Your task to perform on an android device: Show me popular games on the Play Store Image 0: 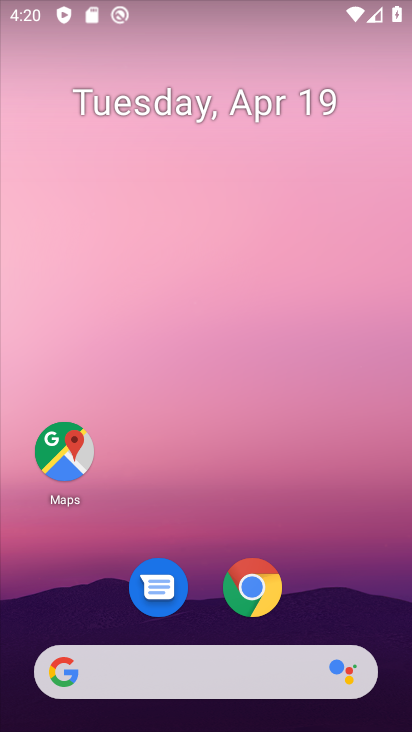
Step 0: drag from (315, 339) to (273, 1)
Your task to perform on an android device: Show me popular games on the Play Store Image 1: 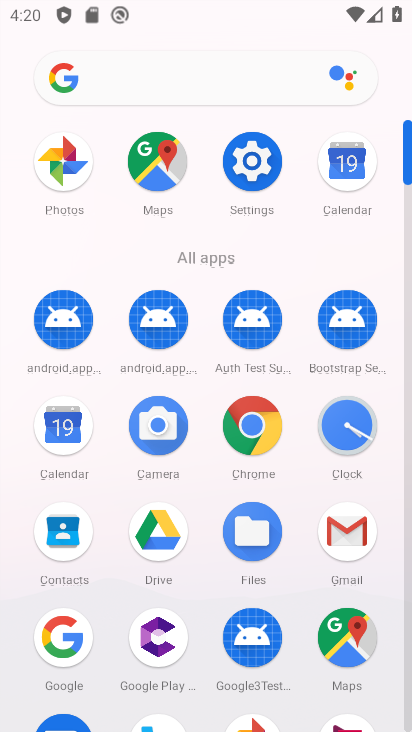
Step 1: drag from (14, 577) to (14, 207)
Your task to perform on an android device: Show me popular games on the Play Store Image 2: 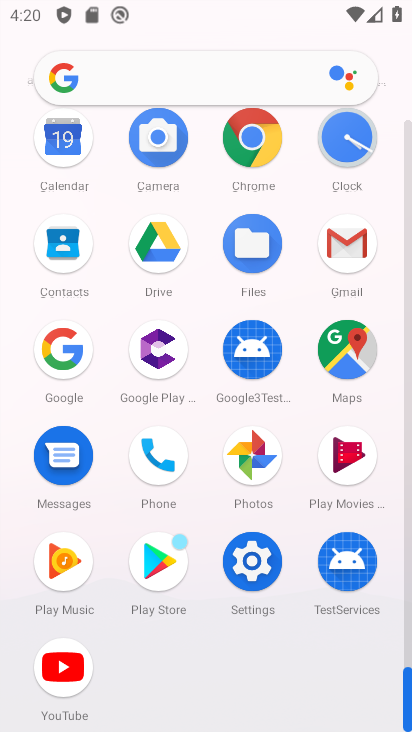
Step 2: click (152, 555)
Your task to perform on an android device: Show me popular games on the Play Store Image 3: 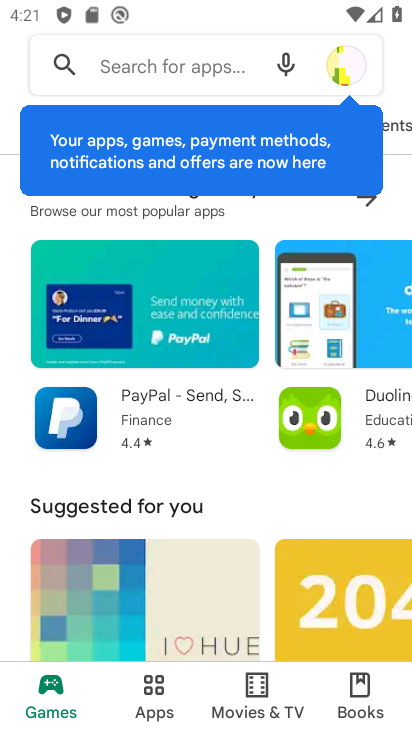
Step 3: click (142, 699)
Your task to perform on an android device: Show me popular games on the Play Store Image 4: 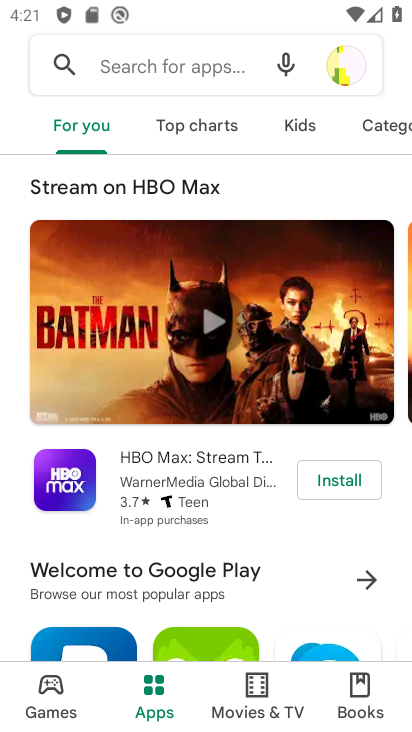
Step 4: drag from (386, 121) to (38, 115)
Your task to perform on an android device: Show me popular games on the Play Store Image 5: 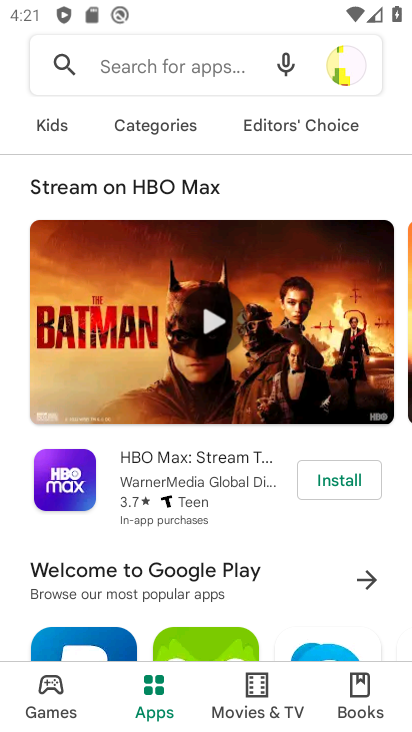
Step 5: drag from (337, 135) to (142, 130)
Your task to perform on an android device: Show me popular games on the Play Store Image 6: 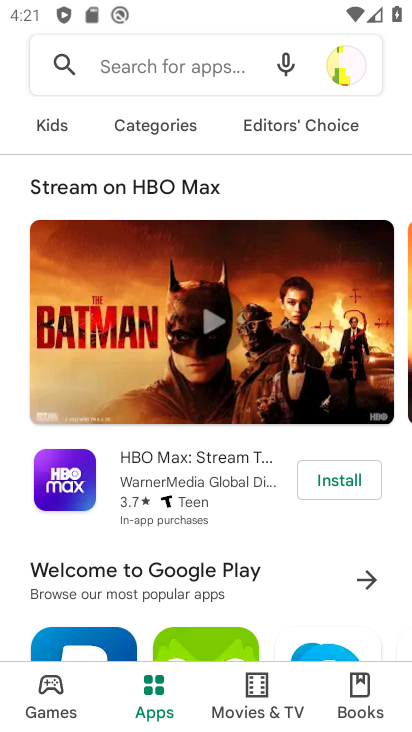
Step 6: drag from (117, 125) to (360, 127)
Your task to perform on an android device: Show me popular games on the Play Store Image 7: 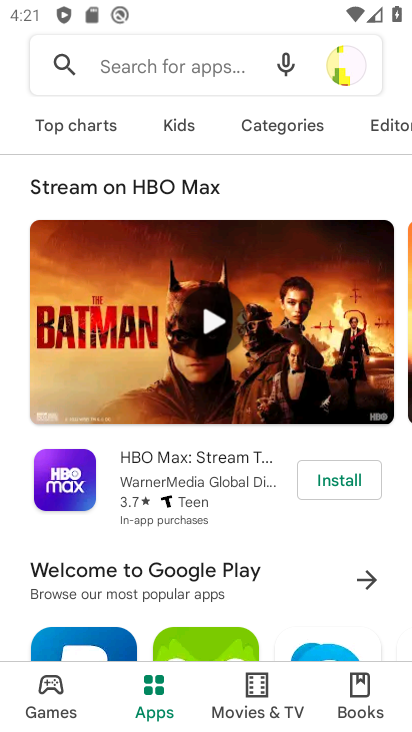
Step 7: drag from (84, 116) to (363, 130)
Your task to perform on an android device: Show me popular games on the Play Store Image 8: 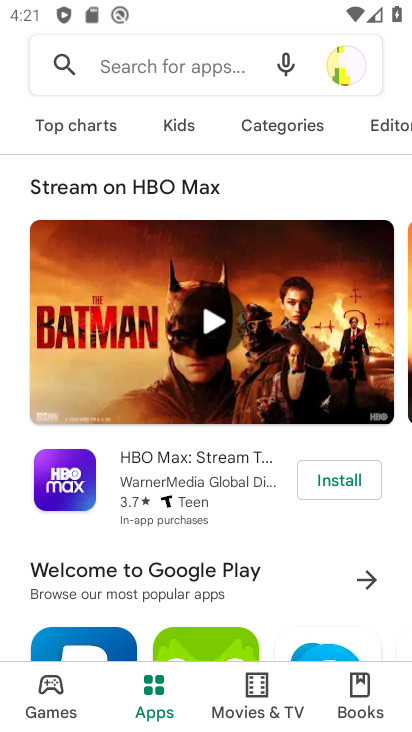
Step 8: drag from (188, 564) to (238, 225)
Your task to perform on an android device: Show me popular games on the Play Store Image 9: 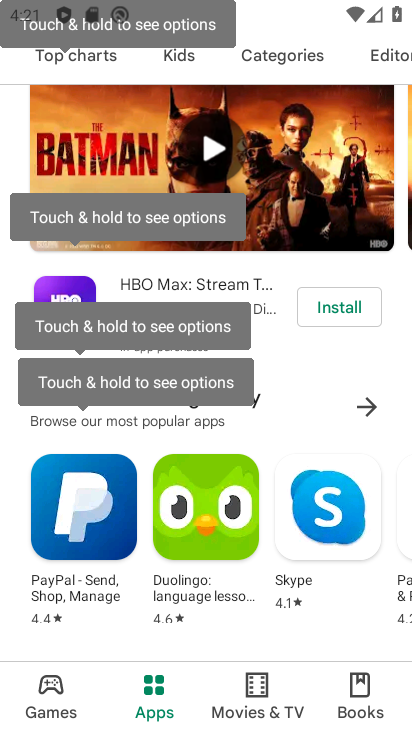
Step 9: drag from (223, 592) to (266, 191)
Your task to perform on an android device: Show me popular games on the Play Store Image 10: 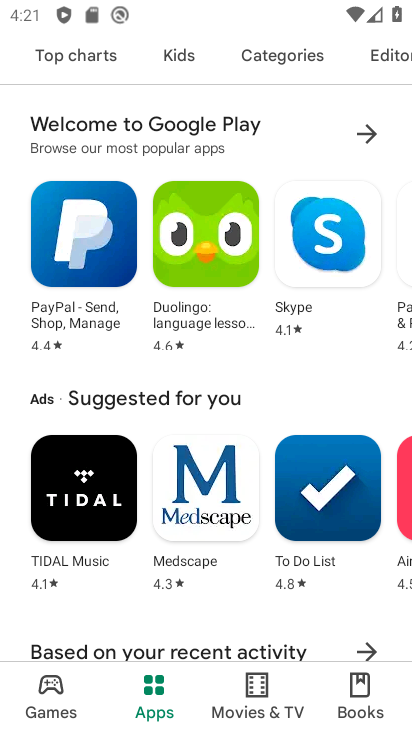
Step 10: drag from (211, 545) to (271, 149)
Your task to perform on an android device: Show me popular games on the Play Store Image 11: 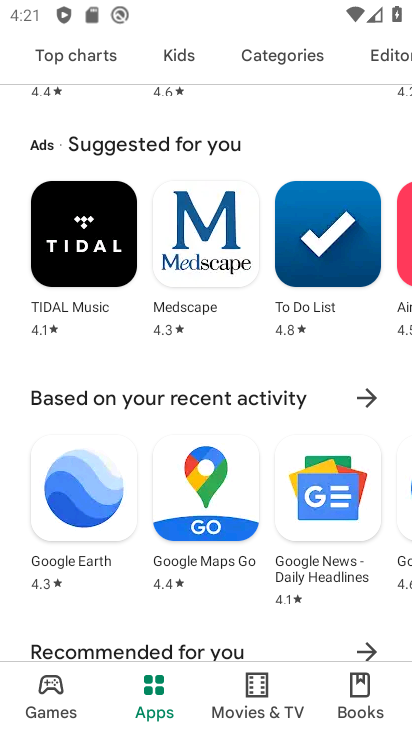
Step 11: drag from (168, 556) to (270, 131)
Your task to perform on an android device: Show me popular games on the Play Store Image 12: 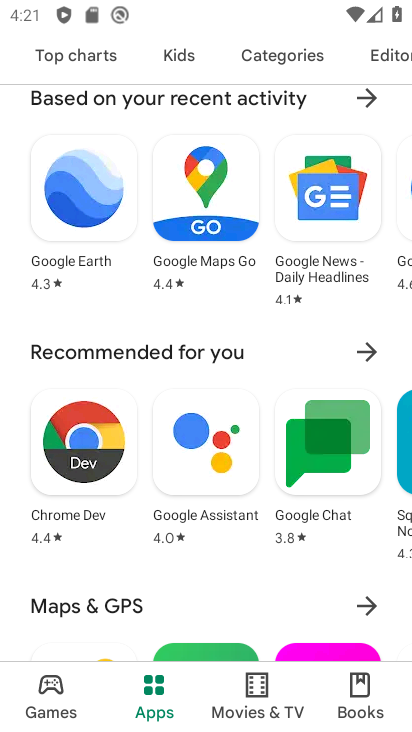
Step 12: drag from (171, 562) to (254, 168)
Your task to perform on an android device: Show me popular games on the Play Store Image 13: 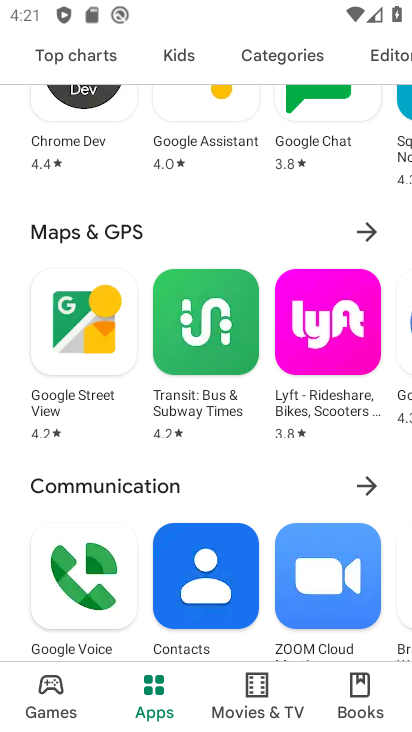
Step 13: drag from (132, 556) to (205, 208)
Your task to perform on an android device: Show me popular games on the Play Store Image 14: 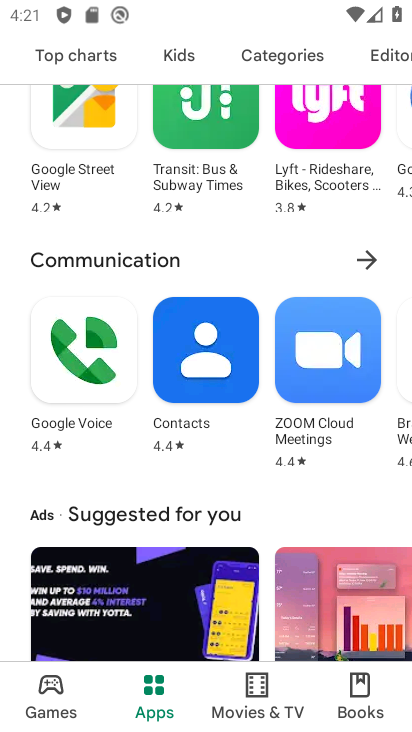
Step 14: drag from (150, 456) to (226, 51)
Your task to perform on an android device: Show me popular games on the Play Store Image 15: 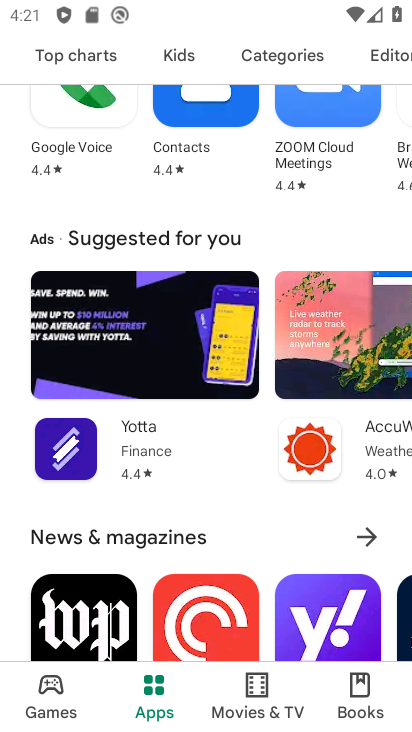
Step 15: click (379, 53)
Your task to perform on an android device: Show me popular games on the Play Store Image 16: 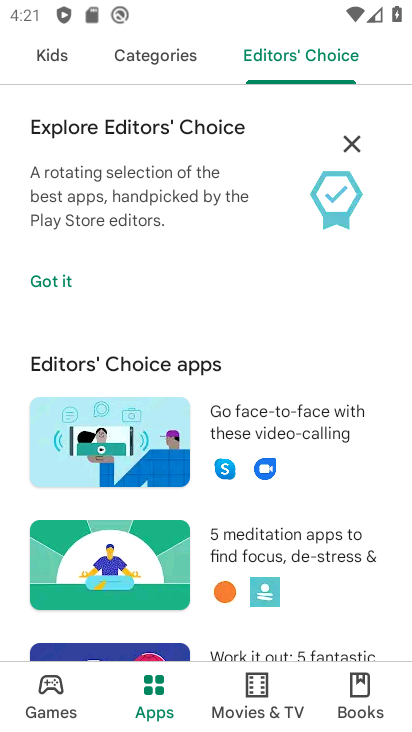
Step 16: click (139, 58)
Your task to perform on an android device: Show me popular games on the Play Store Image 17: 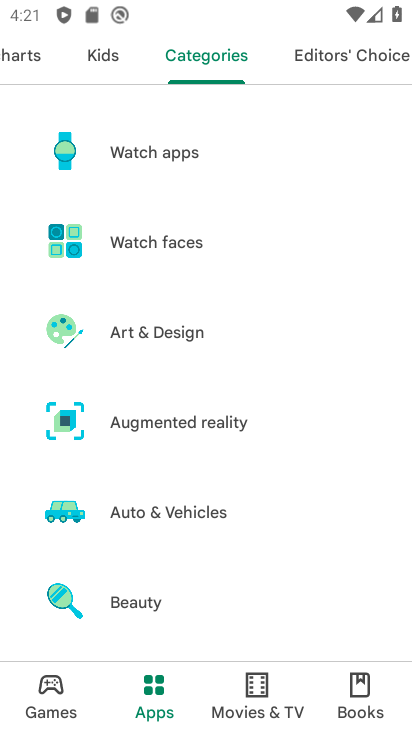
Step 17: click (95, 57)
Your task to perform on an android device: Show me popular games on the Play Store Image 18: 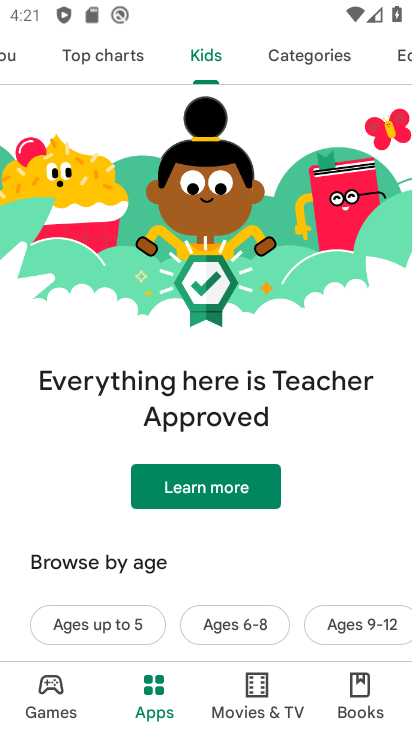
Step 18: click (29, 52)
Your task to perform on an android device: Show me popular games on the Play Store Image 19: 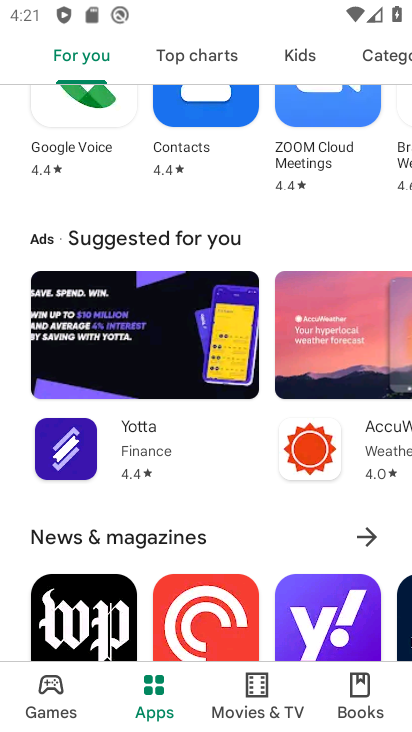
Step 19: drag from (147, 179) to (144, 423)
Your task to perform on an android device: Show me popular games on the Play Store Image 20: 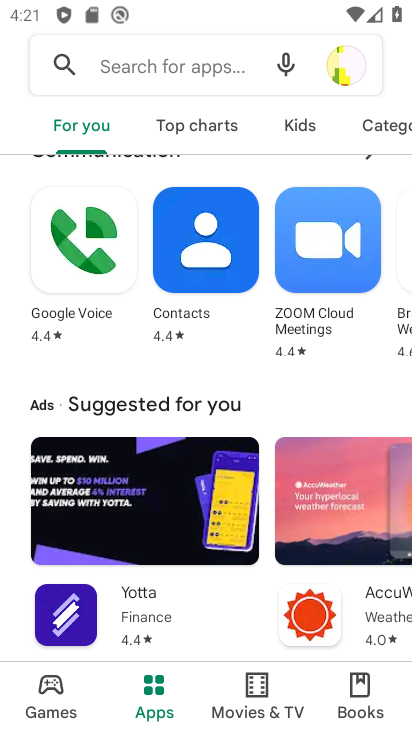
Step 20: drag from (193, 226) to (191, 525)
Your task to perform on an android device: Show me popular games on the Play Store Image 21: 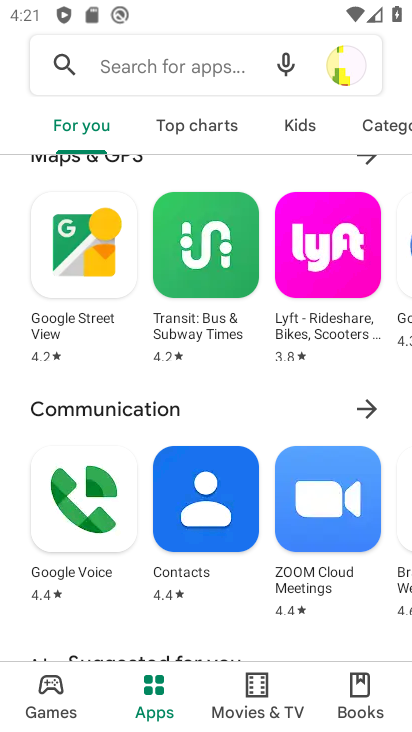
Step 21: click (61, 701)
Your task to perform on an android device: Show me popular games on the Play Store Image 22: 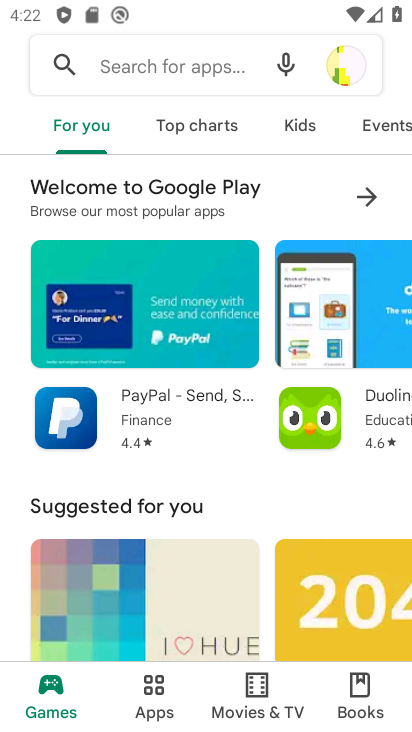
Step 22: task complete